Your task to perform on an android device: Go to accessibility settings Image 0: 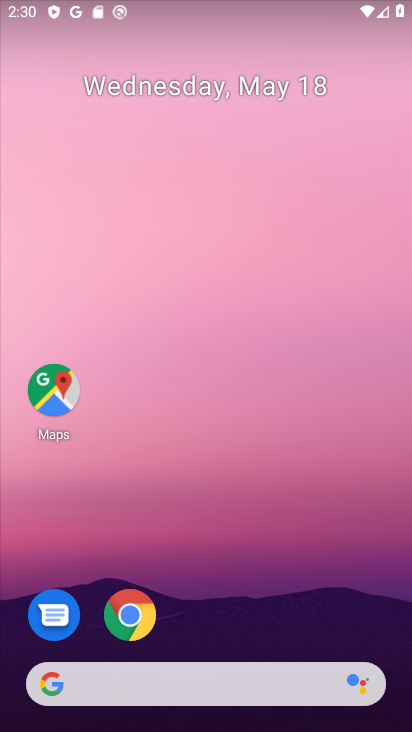
Step 0: drag from (200, 567) to (234, 279)
Your task to perform on an android device: Go to accessibility settings Image 1: 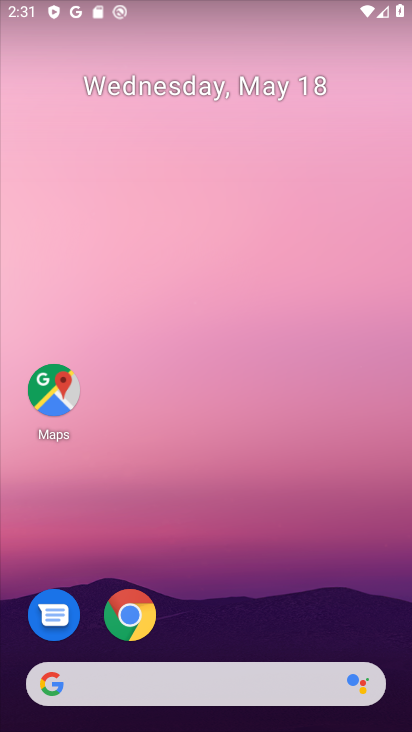
Step 1: drag from (248, 641) to (245, 165)
Your task to perform on an android device: Go to accessibility settings Image 2: 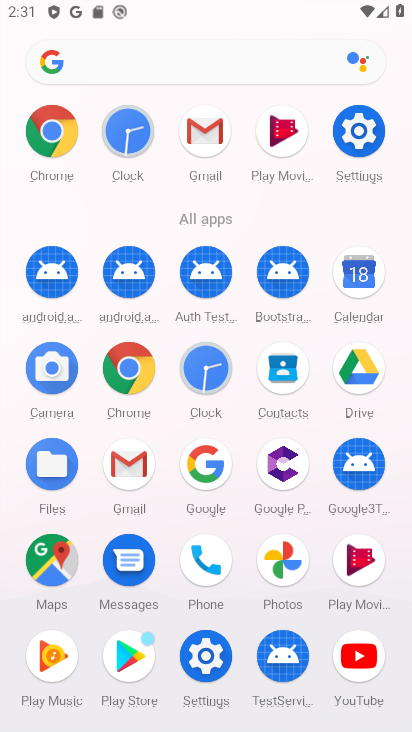
Step 2: click (355, 128)
Your task to perform on an android device: Go to accessibility settings Image 3: 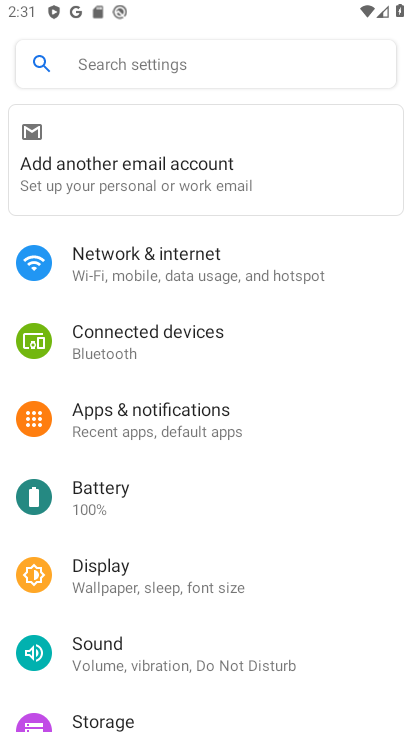
Step 3: drag from (163, 543) to (197, 240)
Your task to perform on an android device: Go to accessibility settings Image 4: 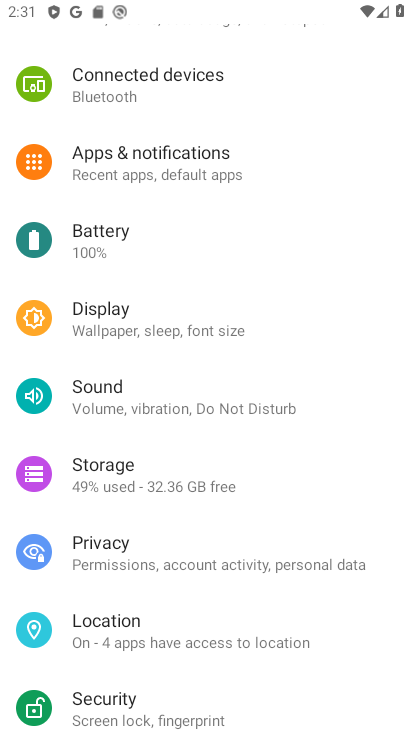
Step 4: drag from (250, 618) to (316, 292)
Your task to perform on an android device: Go to accessibility settings Image 5: 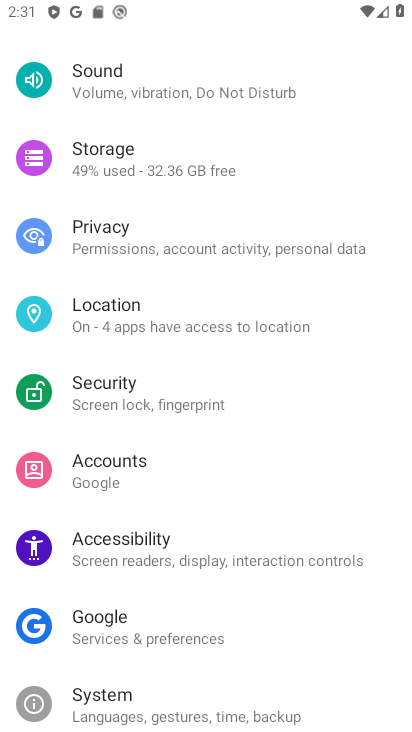
Step 5: click (132, 555)
Your task to perform on an android device: Go to accessibility settings Image 6: 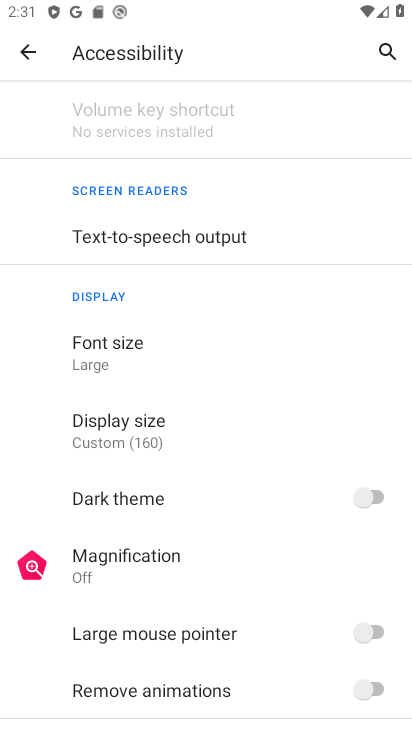
Step 6: task complete